Your task to perform on an android device: open app "Speedtest by Ookla" (install if not already installed) Image 0: 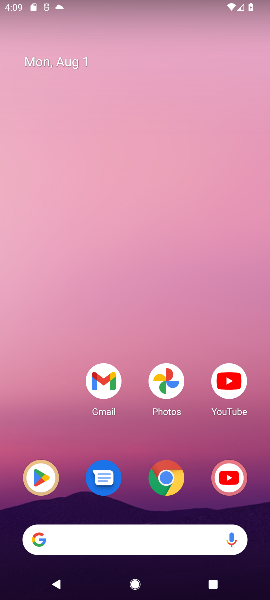
Step 0: drag from (43, 463) to (261, 491)
Your task to perform on an android device: open app "Speedtest by Ookla" (install if not already installed) Image 1: 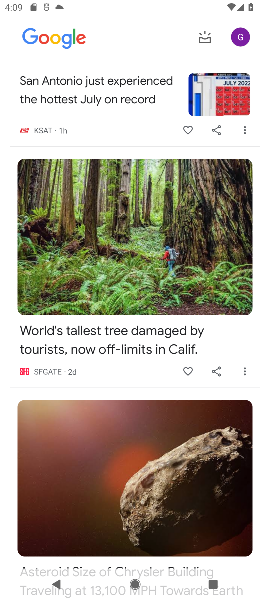
Step 1: press home button
Your task to perform on an android device: open app "Speedtest by Ookla" (install if not already installed) Image 2: 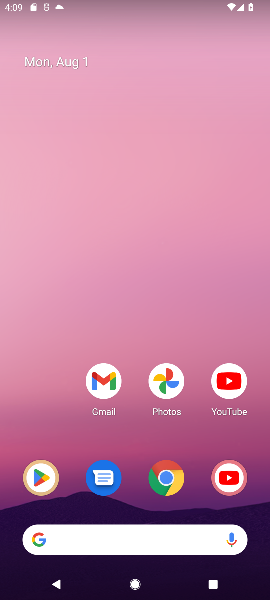
Step 2: drag from (47, 472) to (268, 485)
Your task to perform on an android device: open app "Speedtest by Ookla" (install if not already installed) Image 3: 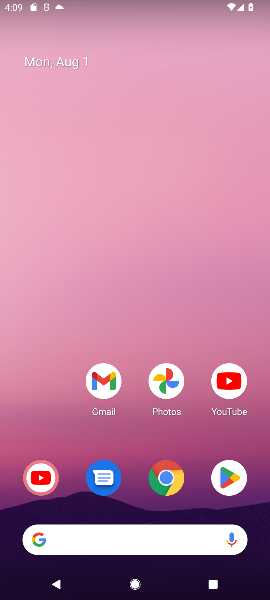
Step 3: click (222, 487)
Your task to perform on an android device: open app "Speedtest by Ookla" (install if not already installed) Image 4: 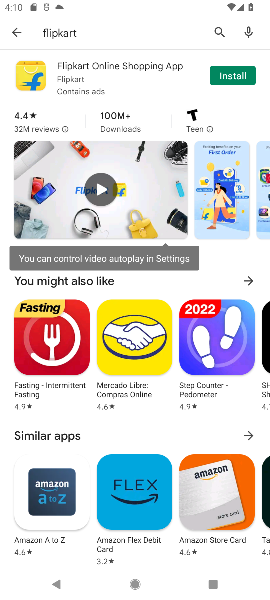
Step 4: click (215, 32)
Your task to perform on an android device: open app "Speedtest by Ookla" (install if not already installed) Image 5: 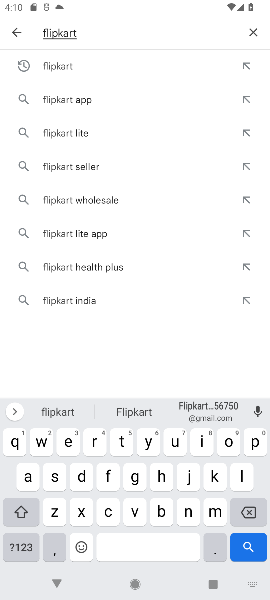
Step 5: click (251, 31)
Your task to perform on an android device: open app "Speedtest by Ookla" (install if not already installed) Image 6: 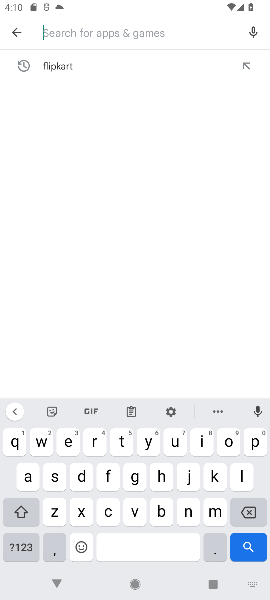
Step 6: click (56, 479)
Your task to perform on an android device: open app "Speedtest by Ookla" (install if not already installed) Image 7: 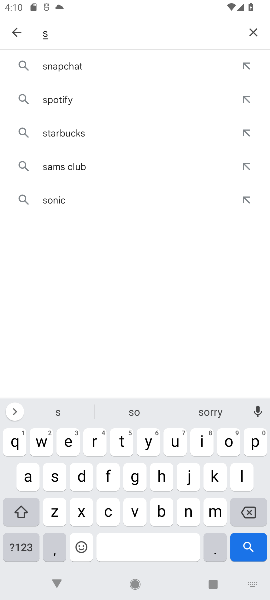
Step 7: click (251, 444)
Your task to perform on an android device: open app "Speedtest by Ookla" (install if not already installed) Image 8: 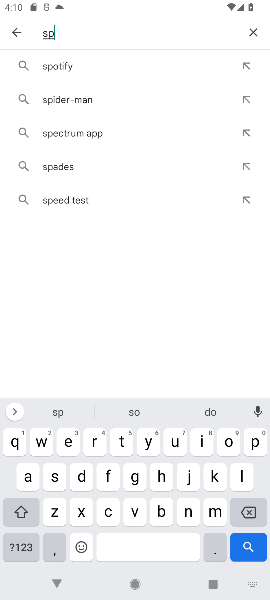
Step 8: click (65, 449)
Your task to perform on an android device: open app "Speedtest by Ookla" (install if not already installed) Image 9: 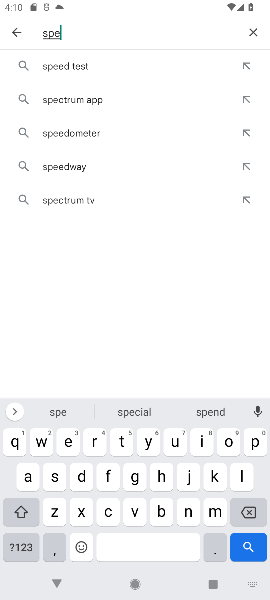
Step 9: click (66, 447)
Your task to perform on an android device: open app "Speedtest by Ookla" (install if not already installed) Image 10: 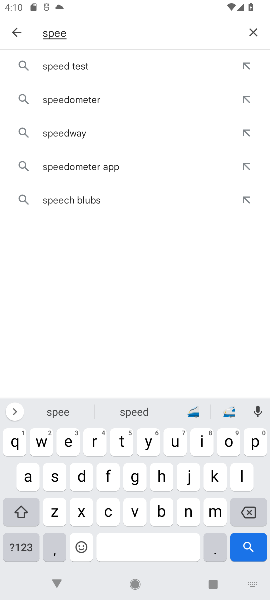
Step 10: click (99, 59)
Your task to perform on an android device: open app "Speedtest by Ookla" (install if not already installed) Image 11: 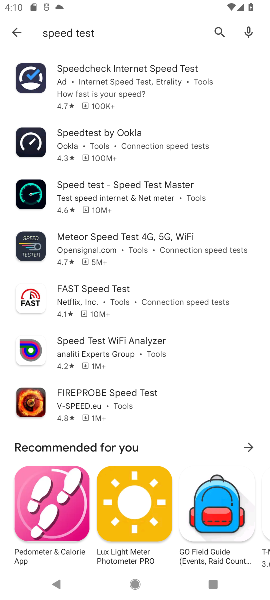
Step 11: click (118, 144)
Your task to perform on an android device: open app "Speedtest by Ookla" (install if not already installed) Image 12: 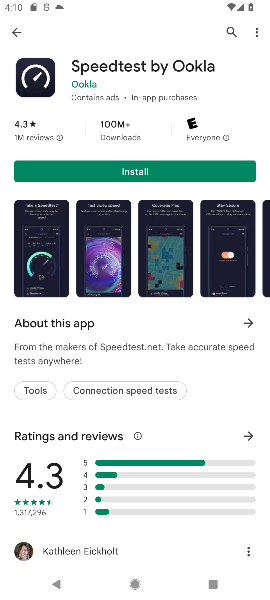
Step 12: click (186, 165)
Your task to perform on an android device: open app "Speedtest by Ookla" (install if not already installed) Image 13: 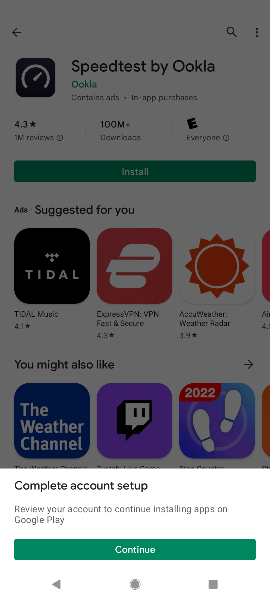
Step 13: click (135, 546)
Your task to perform on an android device: open app "Speedtest by Ookla" (install if not already installed) Image 14: 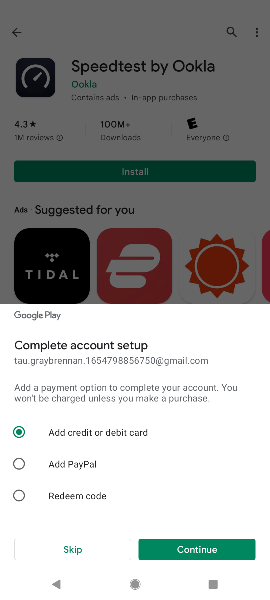
Step 14: click (62, 553)
Your task to perform on an android device: open app "Speedtest by Ookla" (install if not already installed) Image 15: 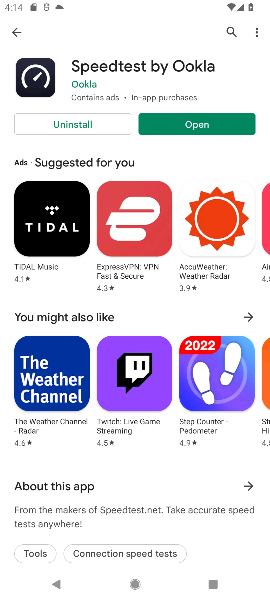
Step 15: click (245, 114)
Your task to perform on an android device: open app "Speedtest by Ookla" (install if not already installed) Image 16: 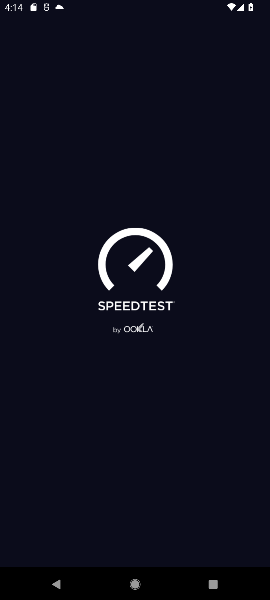
Step 16: task complete